Your task to perform on an android device: change the clock style Image 0: 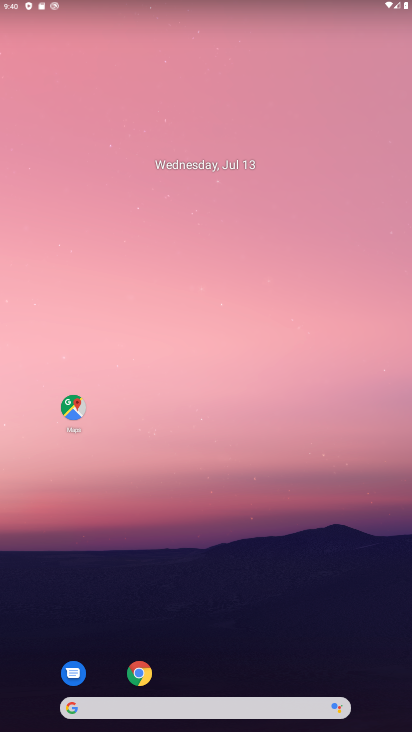
Step 0: drag from (203, 663) to (236, 246)
Your task to perform on an android device: change the clock style Image 1: 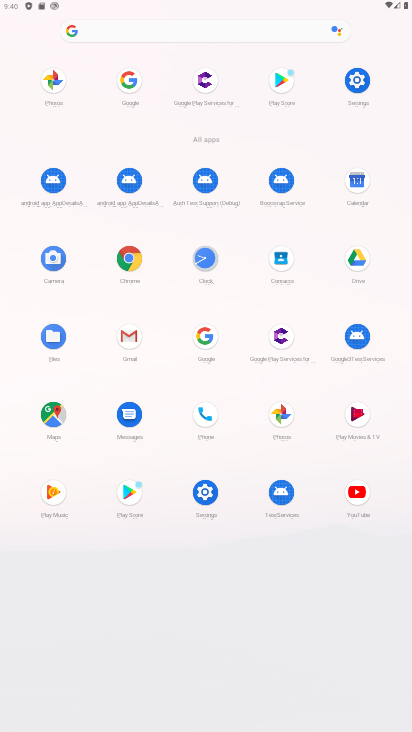
Step 1: click (205, 262)
Your task to perform on an android device: change the clock style Image 2: 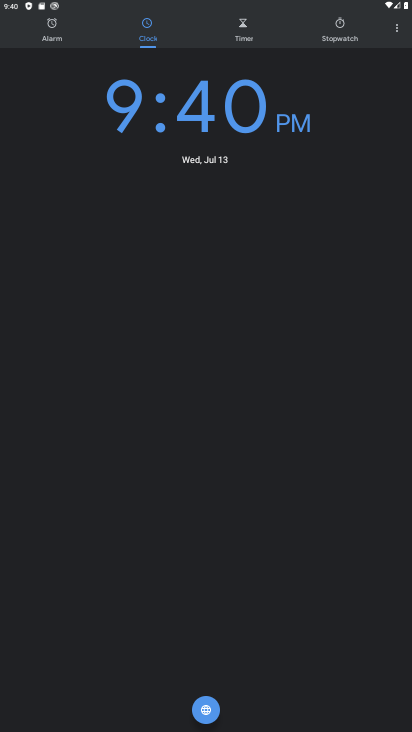
Step 2: click (401, 30)
Your task to perform on an android device: change the clock style Image 3: 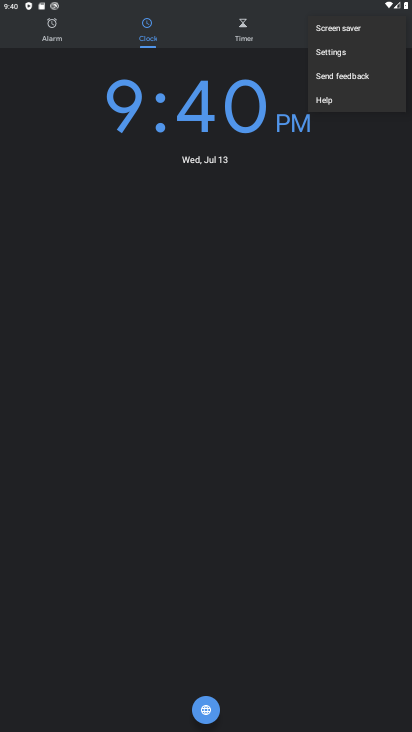
Step 3: click (343, 53)
Your task to perform on an android device: change the clock style Image 4: 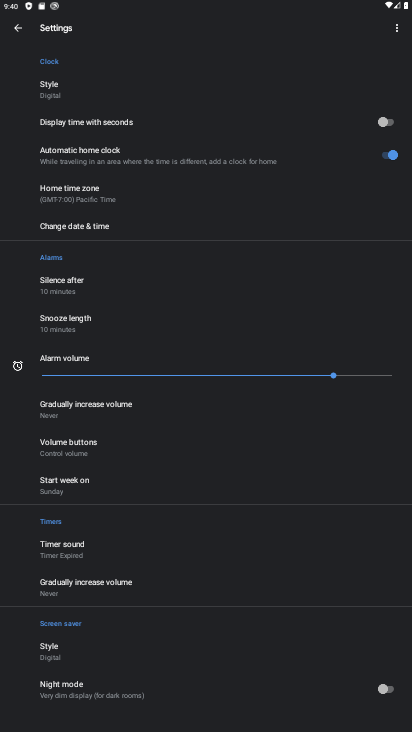
Step 4: click (54, 95)
Your task to perform on an android device: change the clock style Image 5: 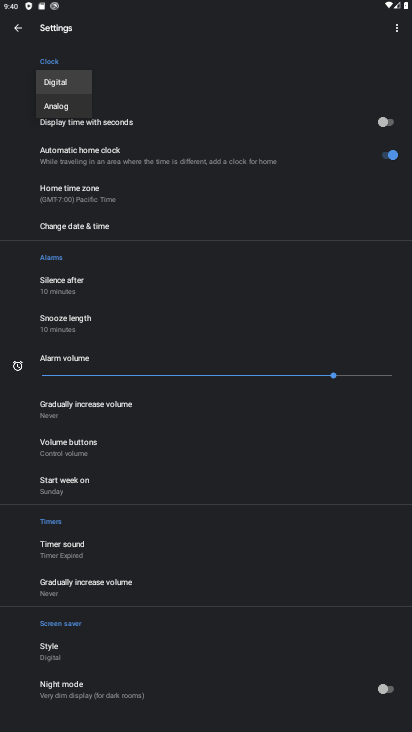
Step 5: click (50, 107)
Your task to perform on an android device: change the clock style Image 6: 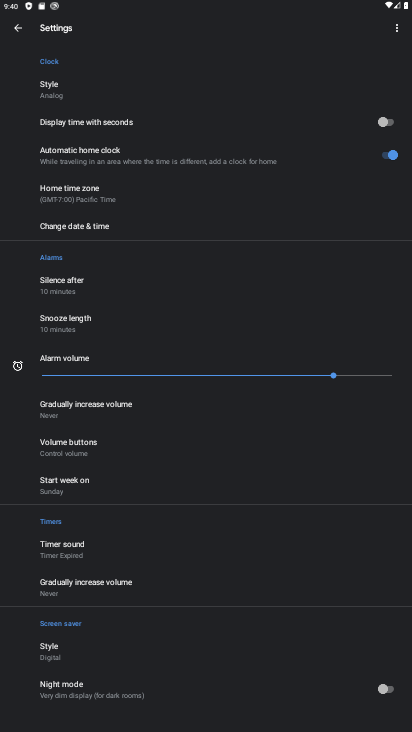
Step 6: task complete